Your task to perform on an android device: star an email in the gmail app Image 0: 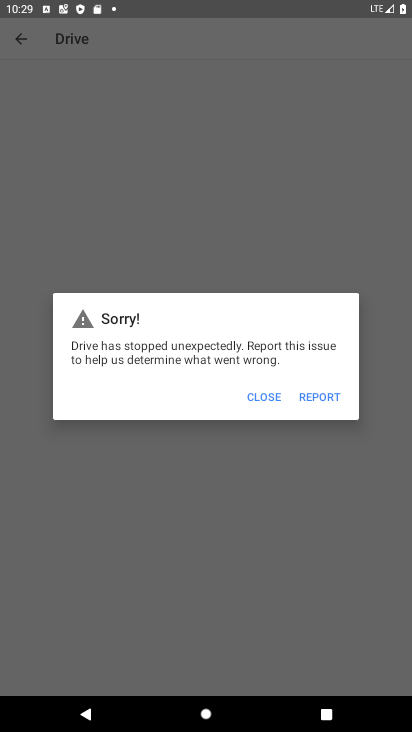
Step 0: press home button
Your task to perform on an android device: star an email in the gmail app Image 1: 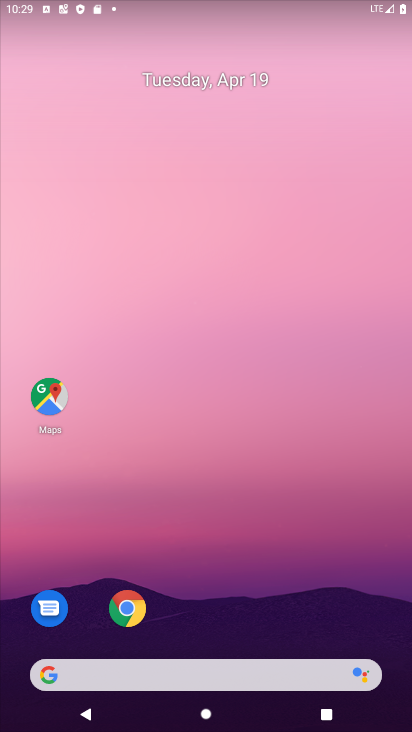
Step 1: drag from (363, 630) to (321, 96)
Your task to perform on an android device: star an email in the gmail app Image 2: 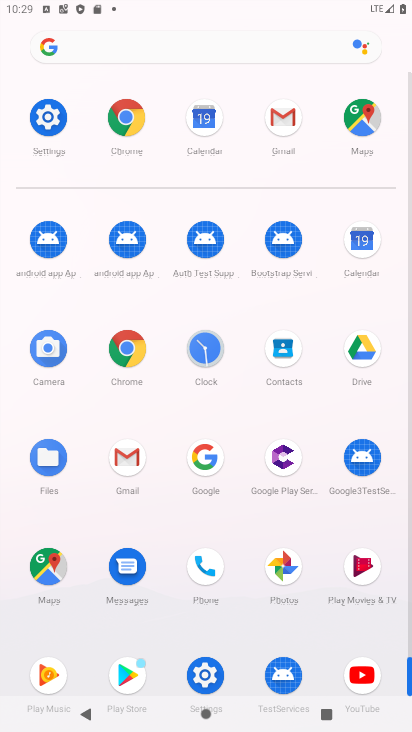
Step 2: click (122, 455)
Your task to perform on an android device: star an email in the gmail app Image 3: 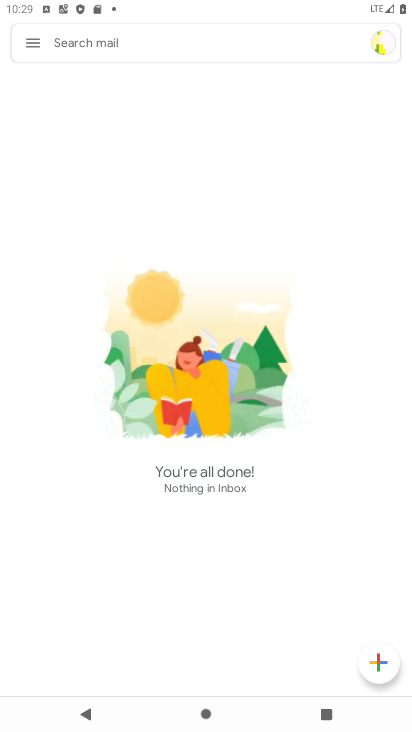
Step 3: click (33, 43)
Your task to perform on an android device: star an email in the gmail app Image 4: 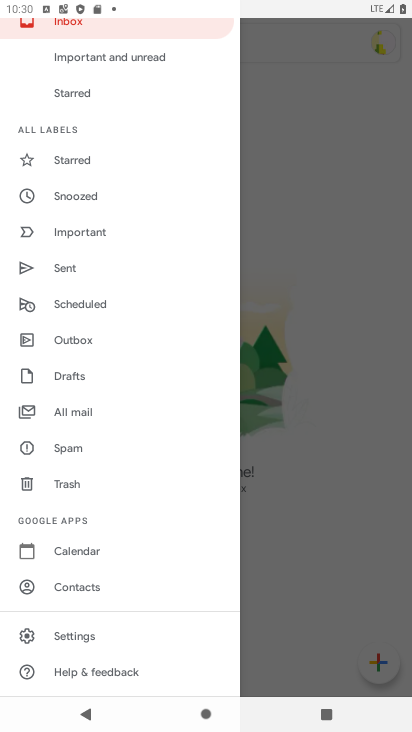
Step 4: click (74, 410)
Your task to perform on an android device: star an email in the gmail app Image 5: 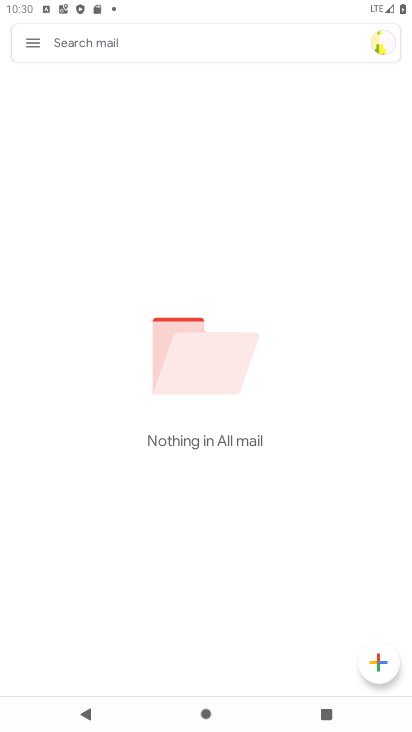
Step 5: task complete